Your task to perform on an android device: open app "Messages" Image 0: 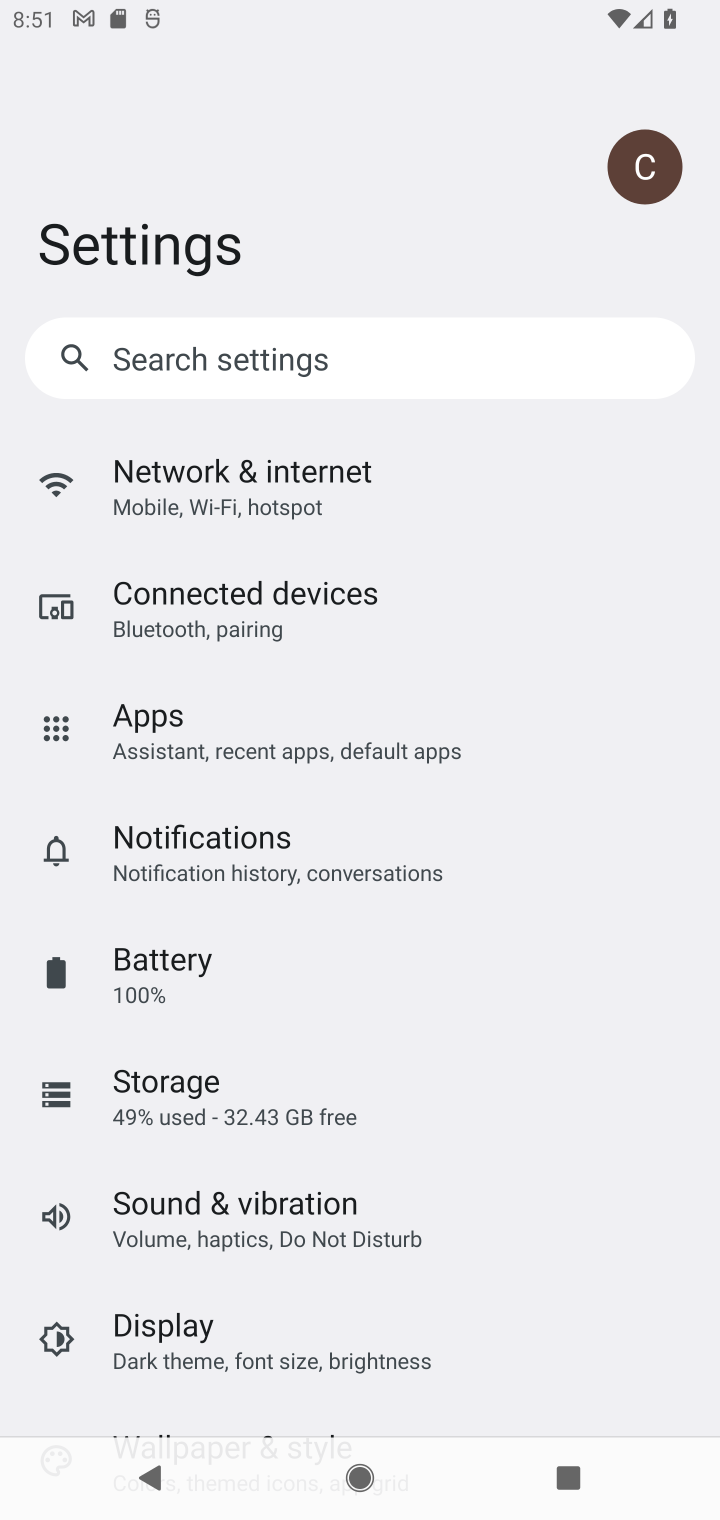
Step 0: press home button
Your task to perform on an android device: open app "Messages" Image 1: 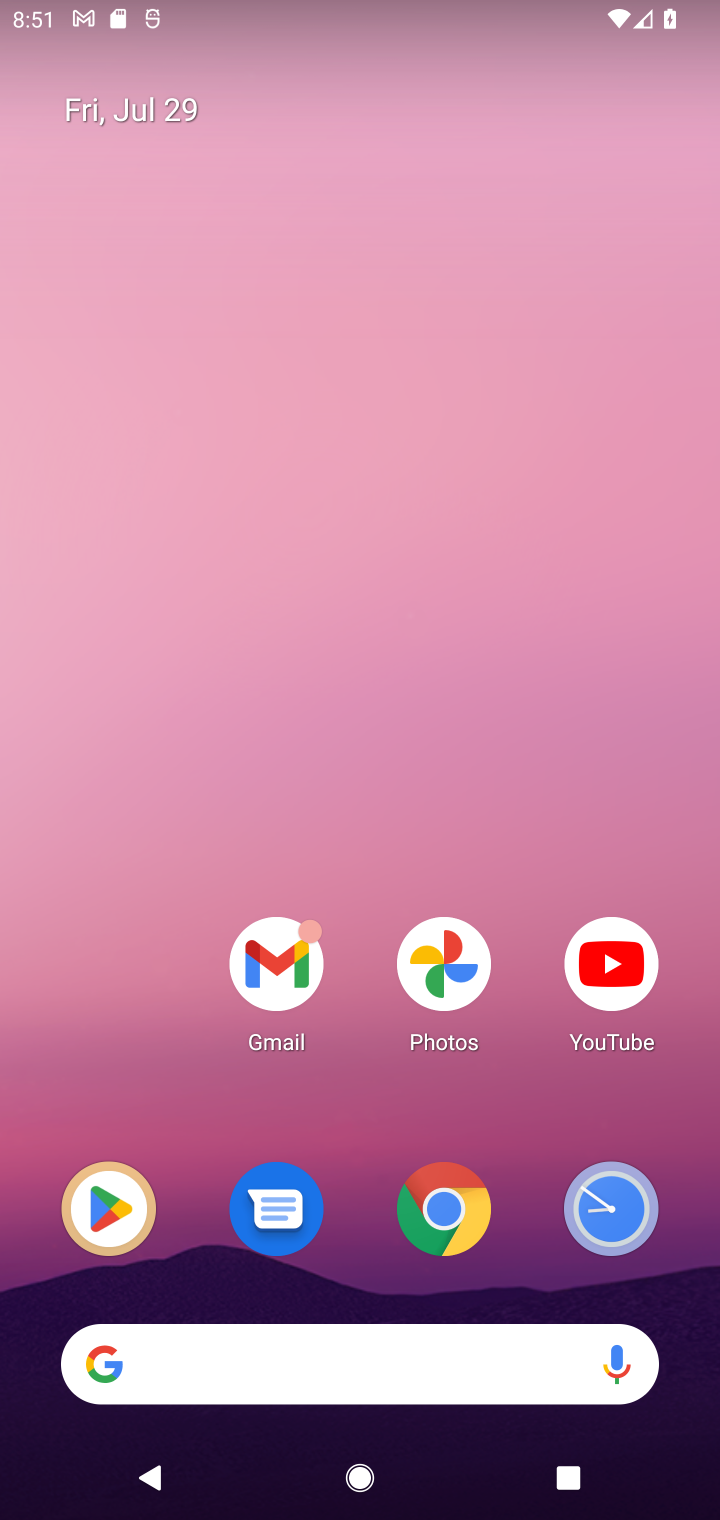
Step 1: drag from (323, 1380) to (424, 88)
Your task to perform on an android device: open app "Messages" Image 2: 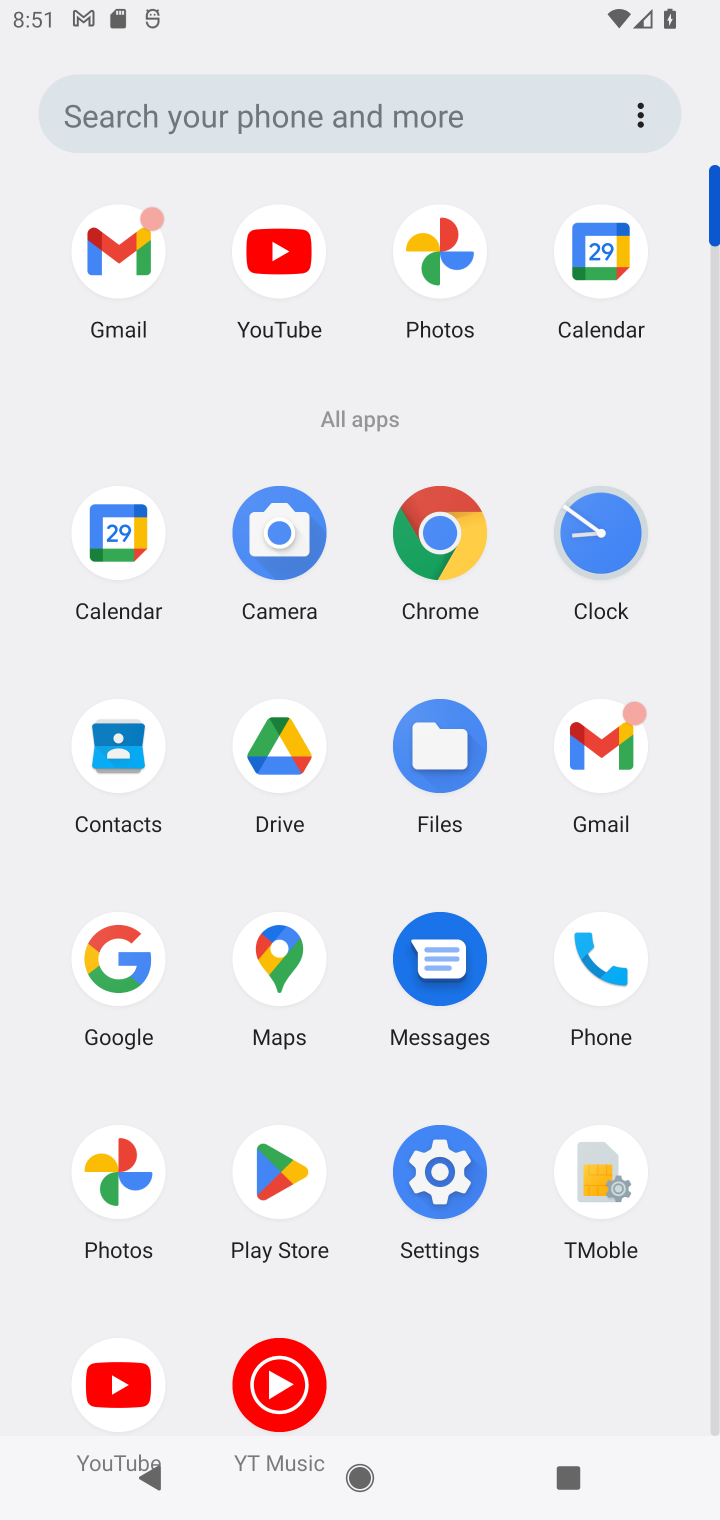
Step 2: click (287, 1173)
Your task to perform on an android device: open app "Messages" Image 3: 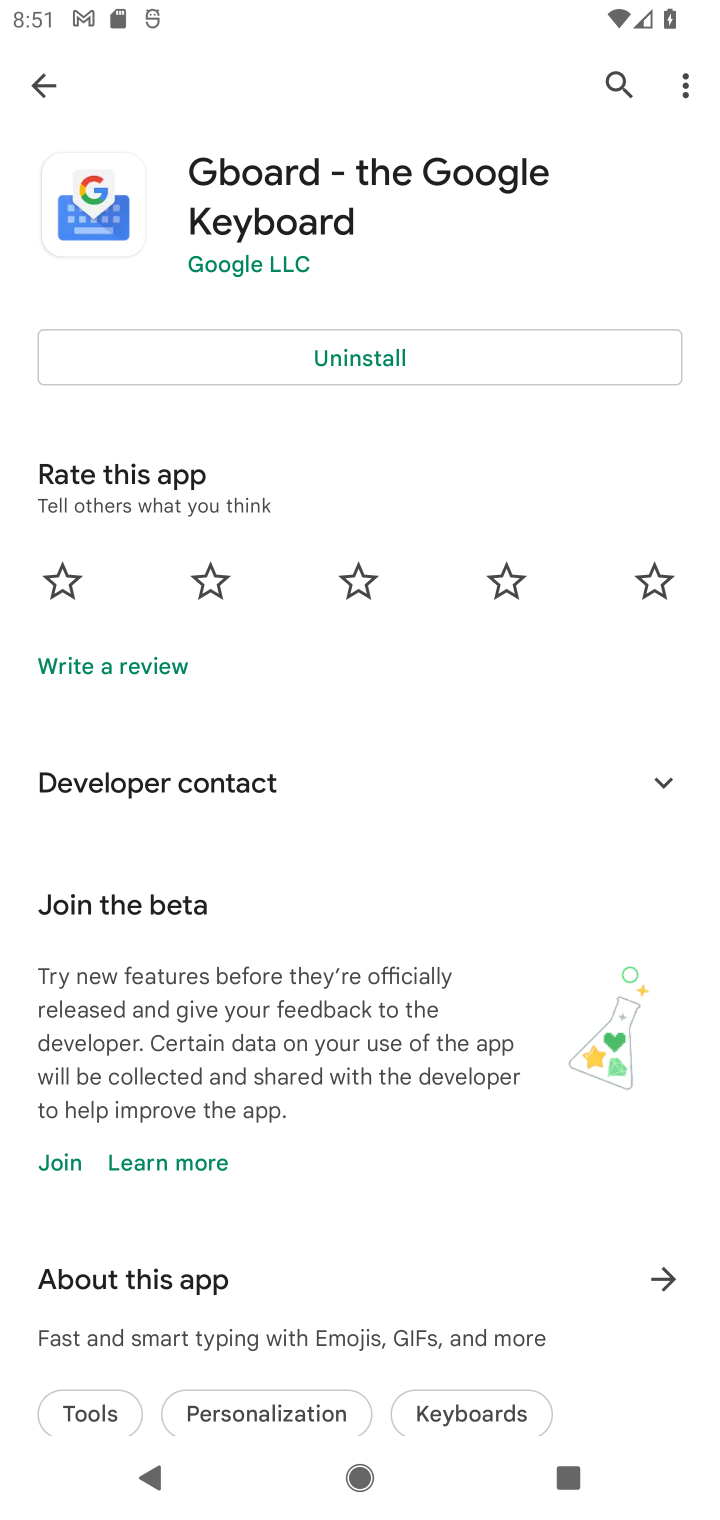
Step 3: click (605, 83)
Your task to perform on an android device: open app "Messages" Image 4: 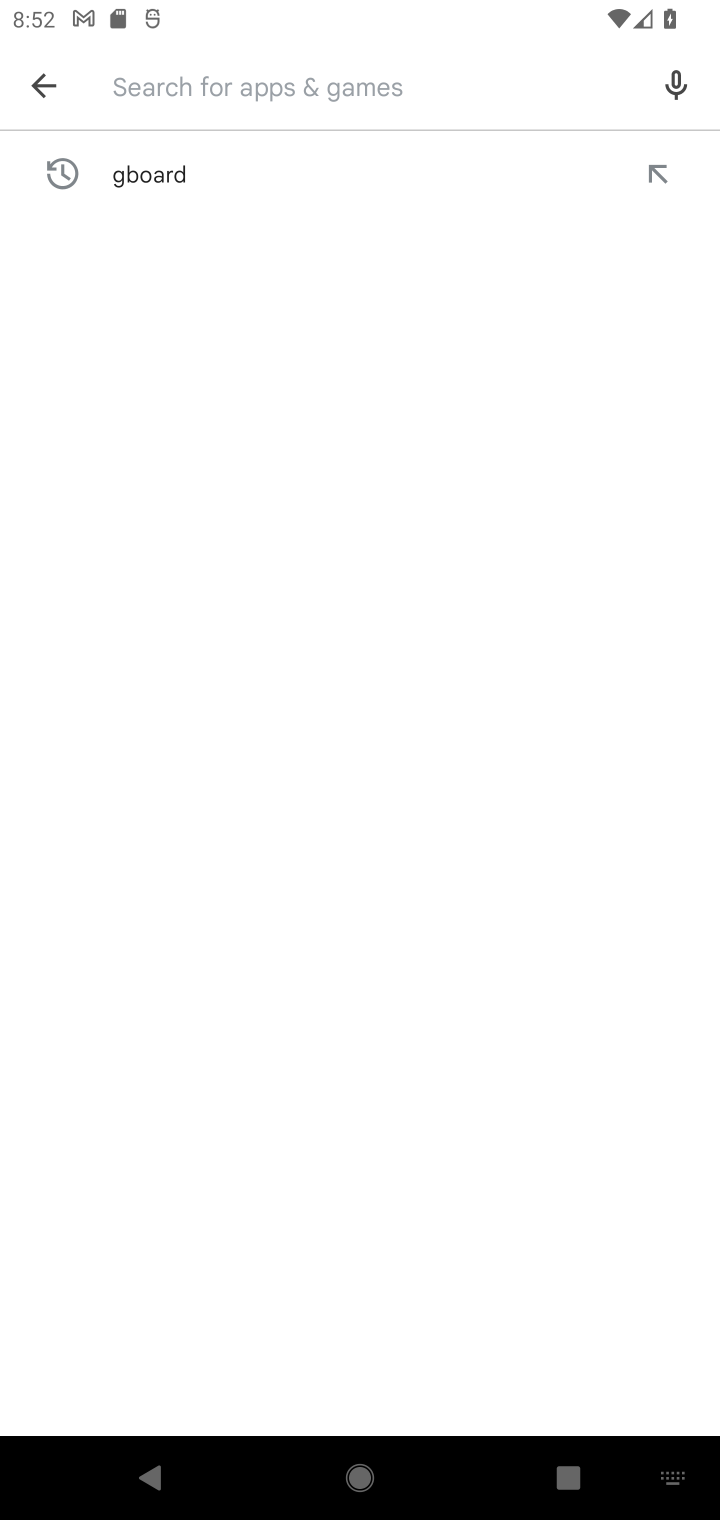
Step 4: type "Message"
Your task to perform on an android device: open app "Messages" Image 5: 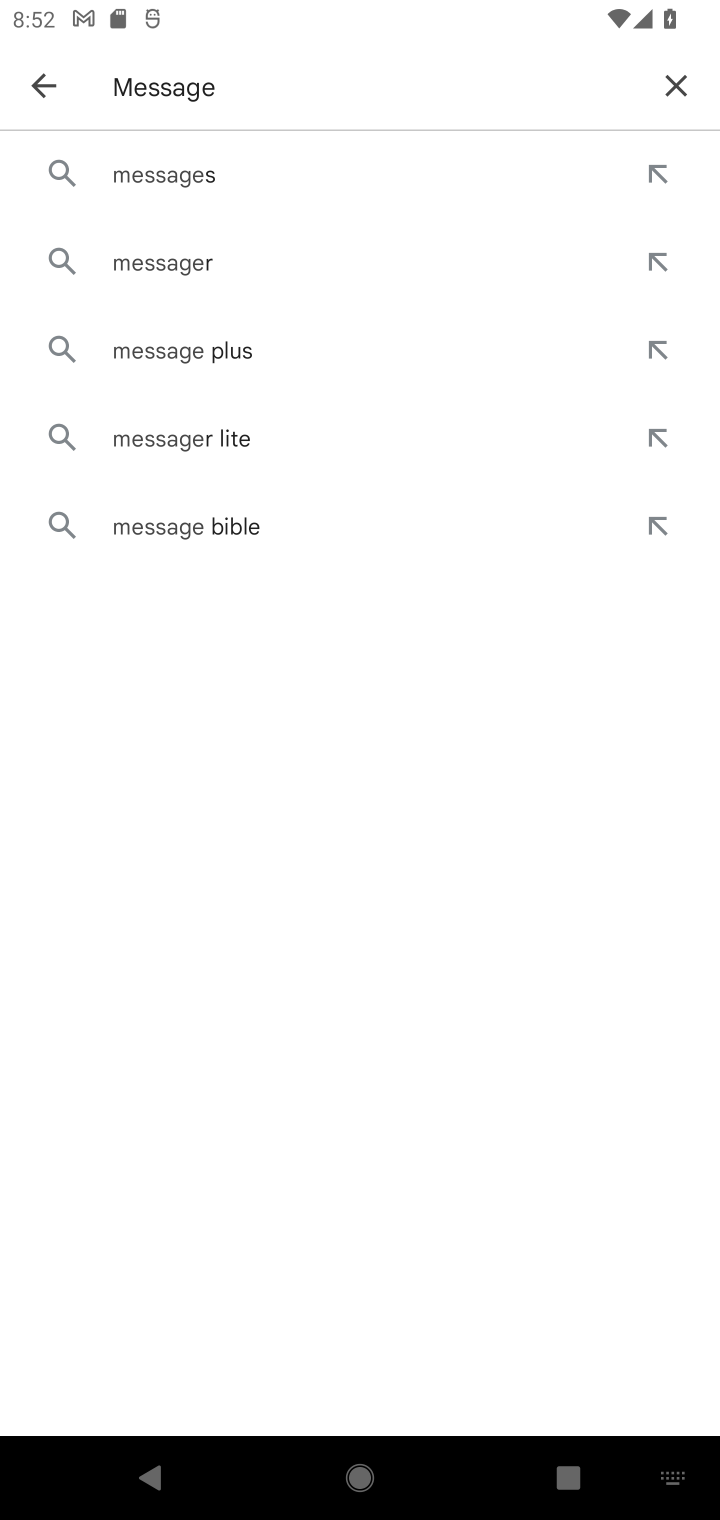
Step 5: click (142, 175)
Your task to perform on an android device: open app "Messages" Image 6: 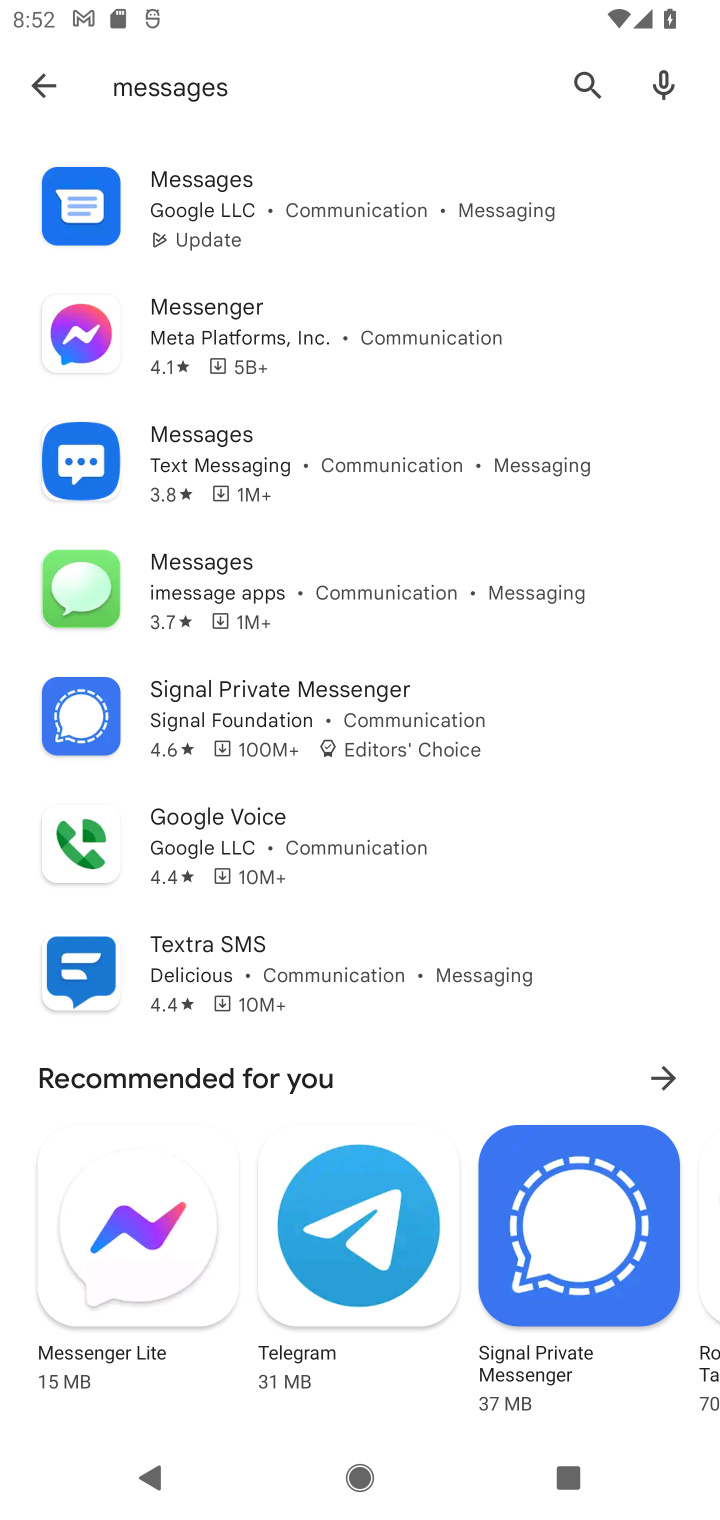
Step 6: click (202, 172)
Your task to perform on an android device: open app "Messages" Image 7: 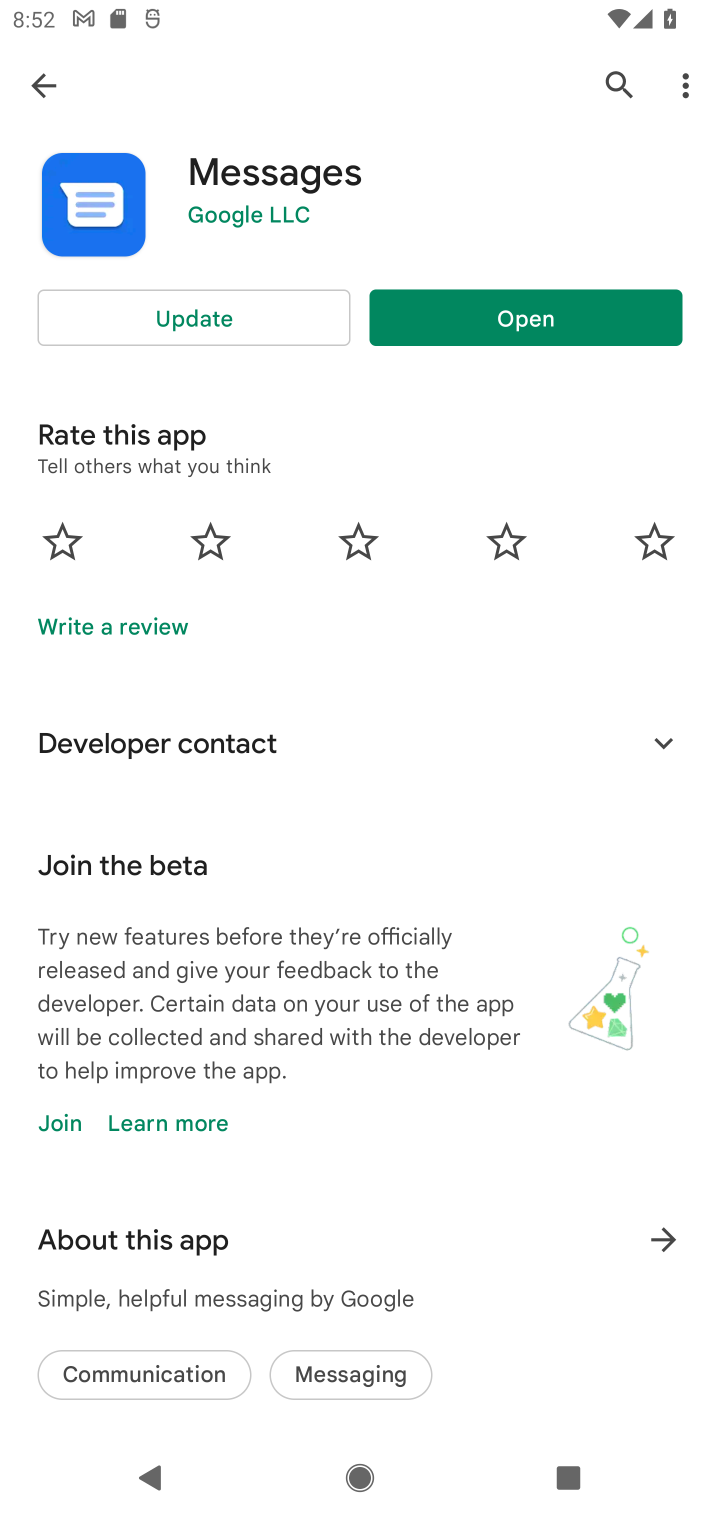
Step 7: click (527, 309)
Your task to perform on an android device: open app "Messages" Image 8: 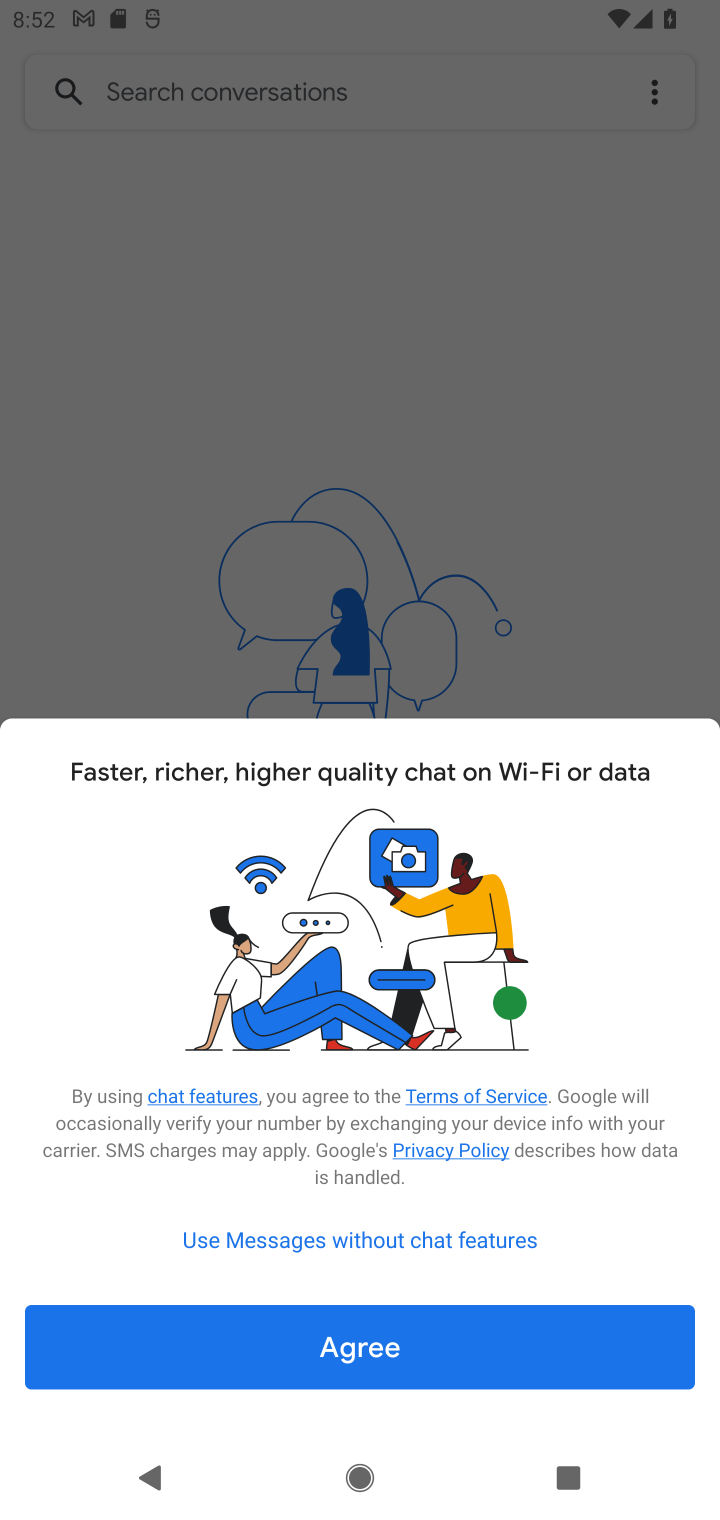
Step 8: click (376, 1325)
Your task to perform on an android device: open app "Messages" Image 9: 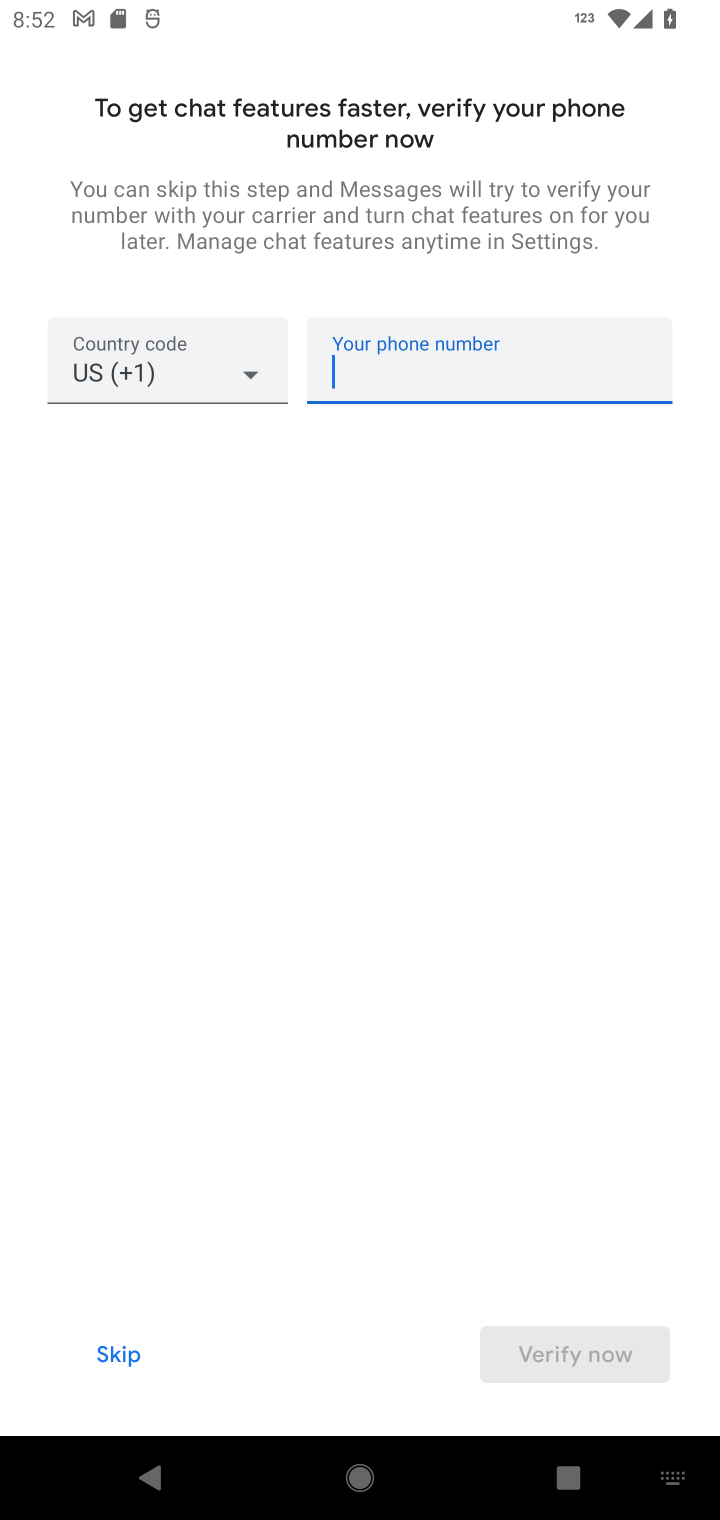
Step 9: task complete